Your task to perform on an android device: turn on data saver in the chrome app Image 0: 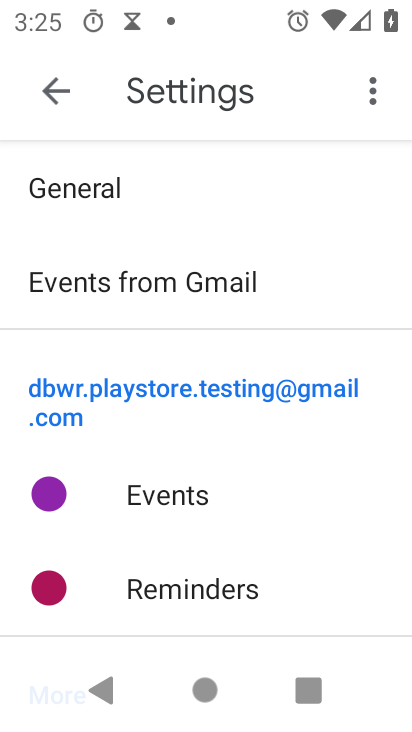
Step 0: press home button
Your task to perform on an android device: turn on data saver in the chrome app Image 1: 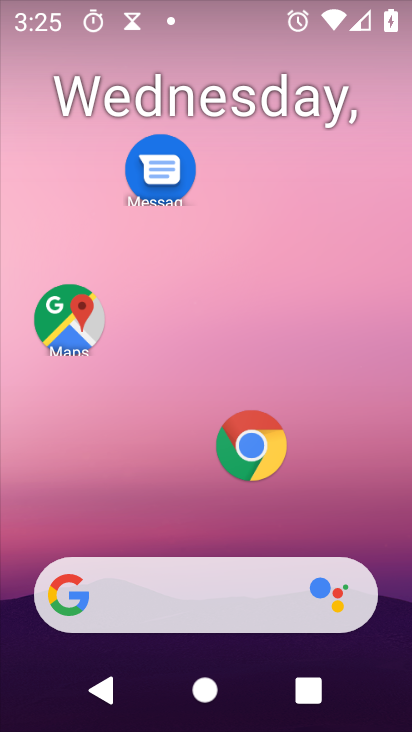
Step 1: click (260, 444)
Your task to perform on an android device: turn on data saver in the chrome app Image 2: 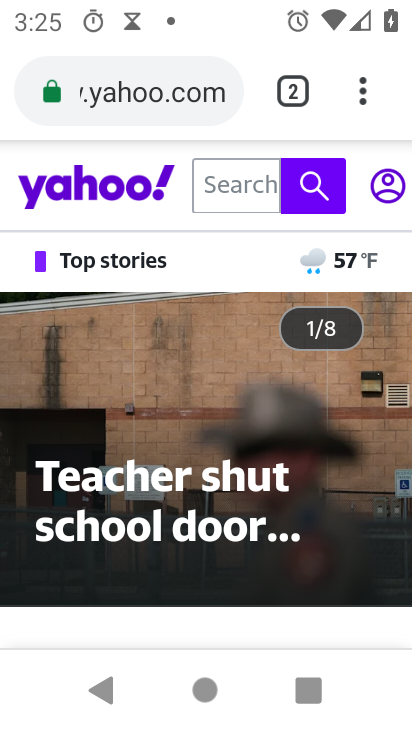
Step 2: click (361, 88)
Your task to perform on an android device: turn on data saver in the chrome app Image 3: 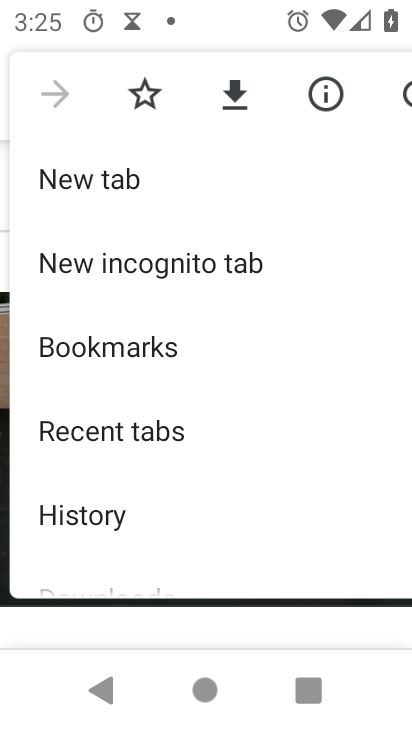
Step 3: drag from (5, 529) to (266, 40)
Your task to perform on an android device: turn on data saver in the chrome app Image 4: 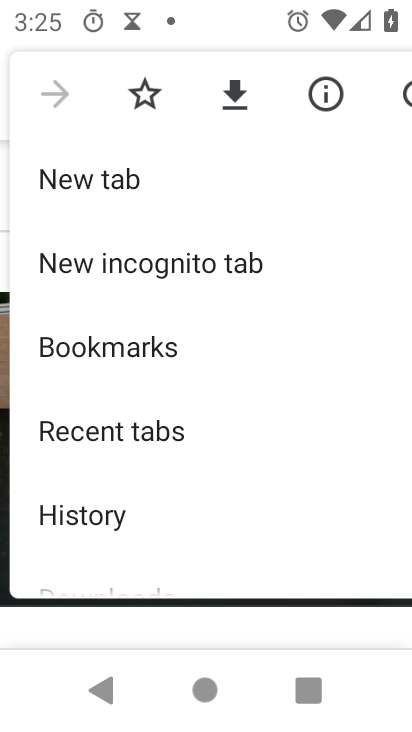
Step 4: drag from (22, 507) to (240, 103)
Your task to perform on an android device: turn on data saver in the chrome app Image 5: 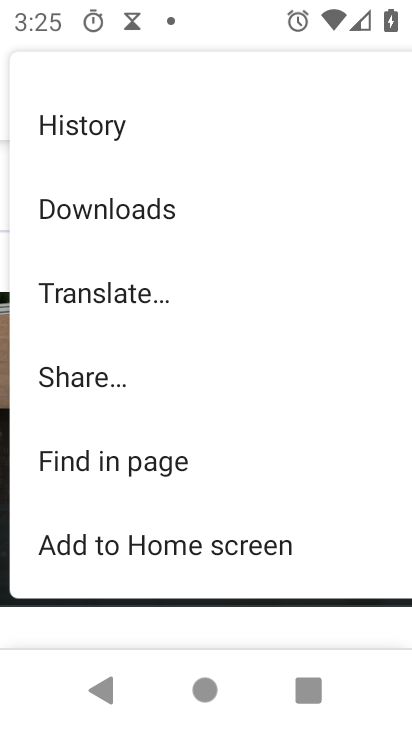
Step 5: drag from (42, 536) to (286, 88)
Your task to perform on an android device: turn on data saver in the chrome app Image 6: 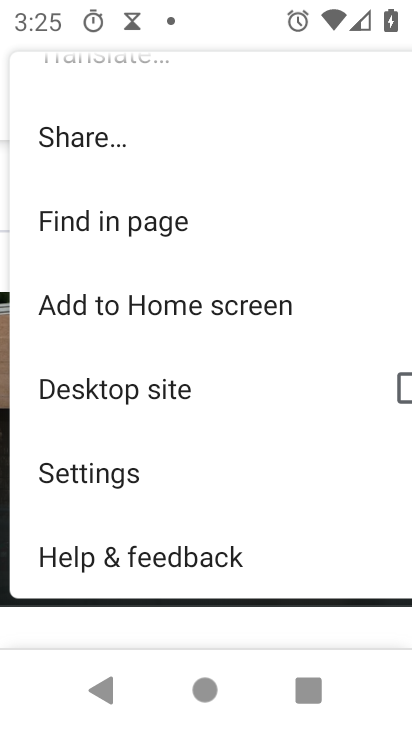
Step 6: click (119, 469)
Your task to perform on an android device: turn on data saver in the chrome app Image 7: 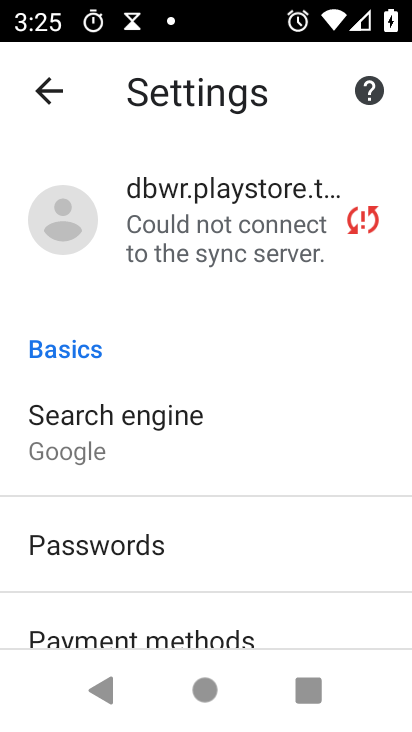
Step 7: drag from (9, 634) to (192, 300)
Your task to perform on an android device: turn on data saver in the chrome app Image 8: 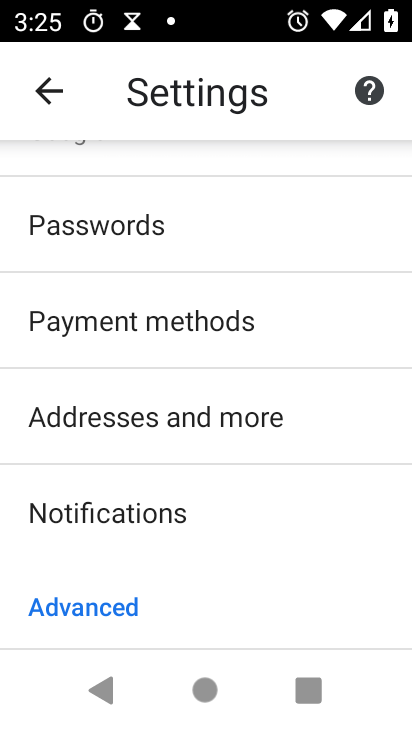
Step 8: drag from (12, 623) to (275, 169)
Your task to perform on an android device: turn on data saver in the chrome app Image 9: 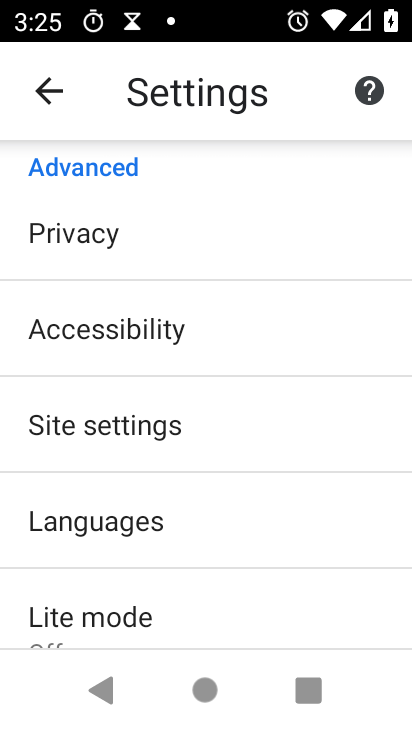
Step 9: click (132, 419)
Your task to perform on an android device: turn on data saver in the chrome app Image 10: 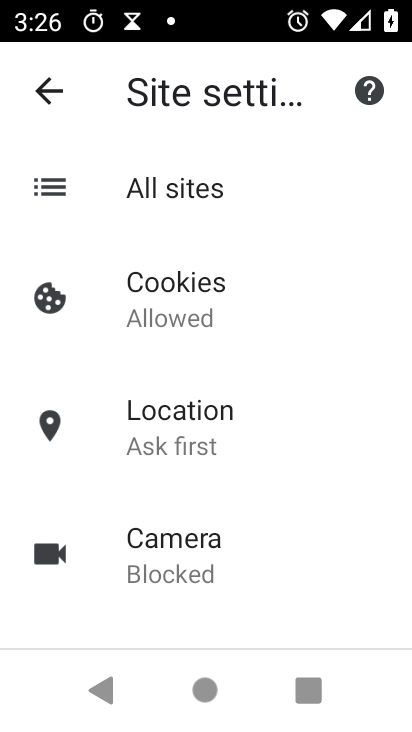
Step 10: drag from (19, 486) to (252, 100)
Your task to perform on an android device: turn on data saver in the chrome app Image 11: 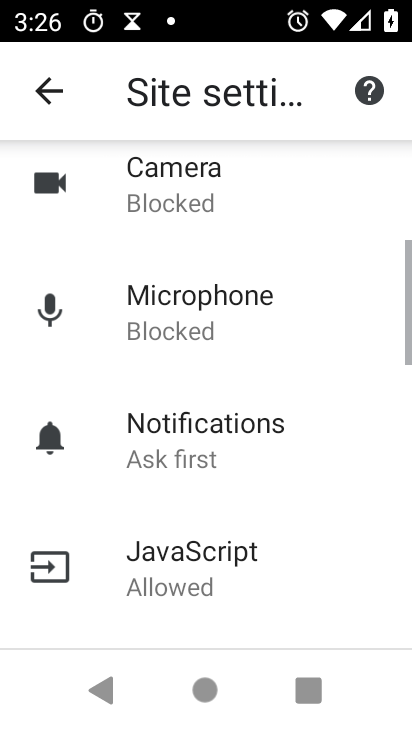
Step 11: drag from (16, 578) to (229, 238)
Your task to perform on an android device: turn on data saver in the chrome app Image 12: 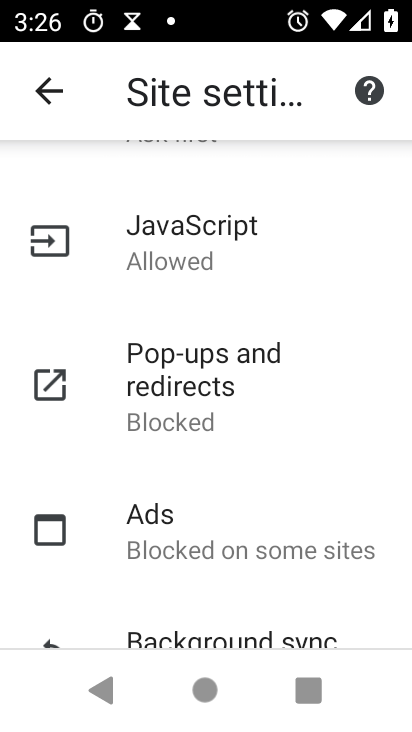
Step 12: press back button
Your task to perform on an android device: turn on data saver in the chrome app Image 13: 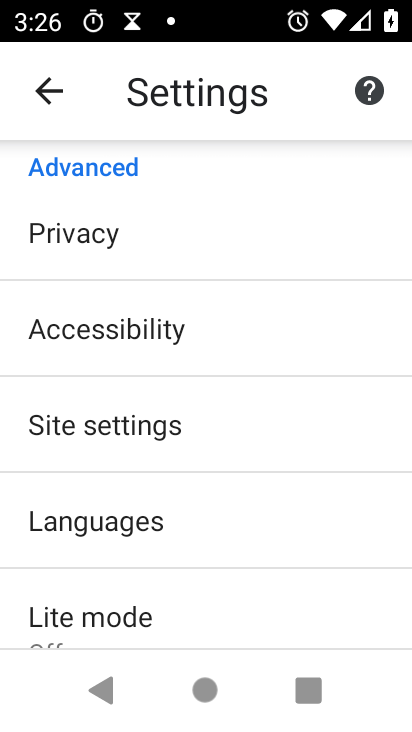
Step 13: click (93, 611)
Your task to perform on an android device: turn on data saver in the chrome app Image 14: 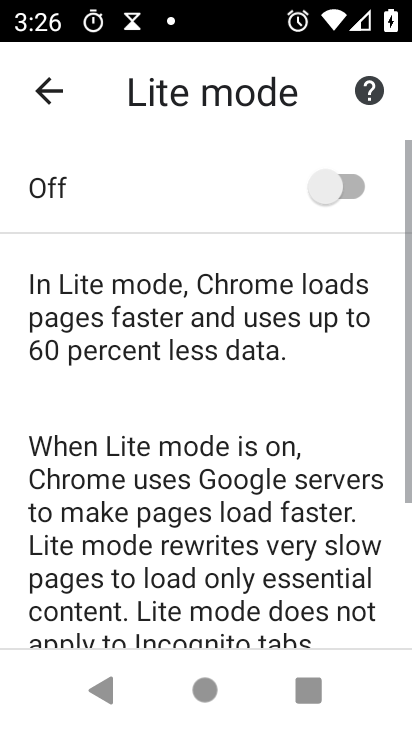
Step 14: click (326, 195)
Your task to perform on an android device: turn on data saver in the chrome app Image 15: 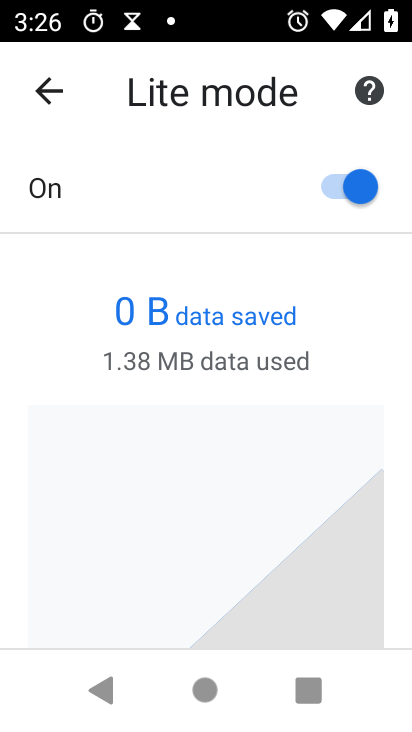
Step 15: task complete